Your task to perform on an android device: toggle notification dots Image 0: 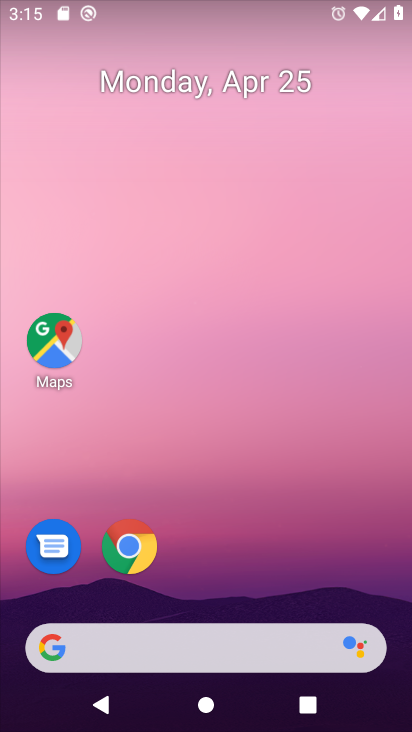
Step 0: drag from (230, 582) to (291, 32)
Your task to perform on an android device: toggle notification dots Image 1: 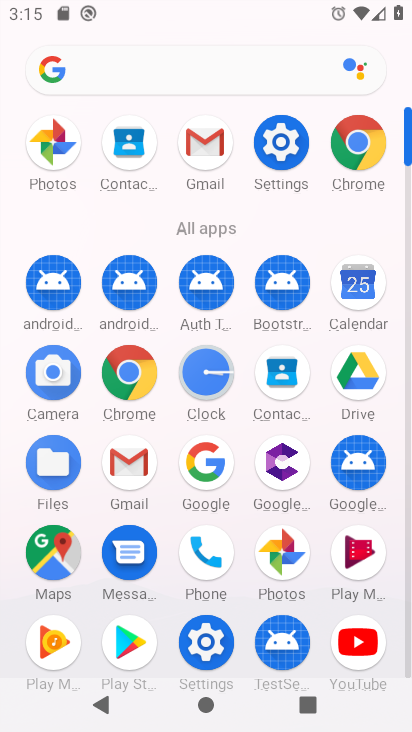
Step 1: click (278, 156)
Your task to perform on an android device: toggle notification dots Image 2: 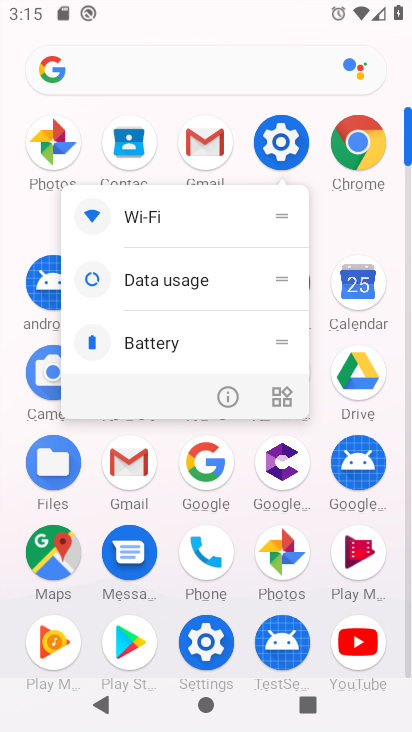
Step 2: click (279, 157)
Your task to perform on an android device: toggle notification dots Image 3: 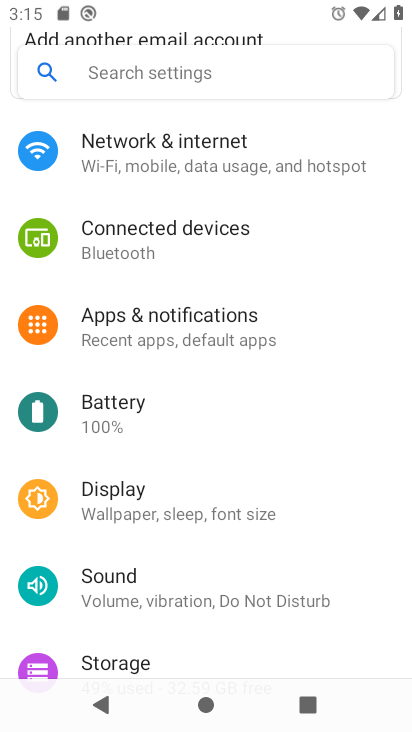
Step 3: click (171, 327)
Your task to perform on an android device: toggle notification dots Image 4: 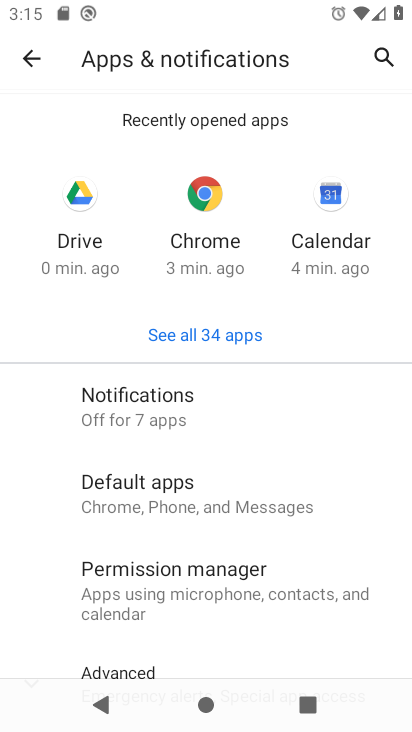
Step 4: click (174, 409)
Your task to perform on an android device: toggle notification dots Image 5: 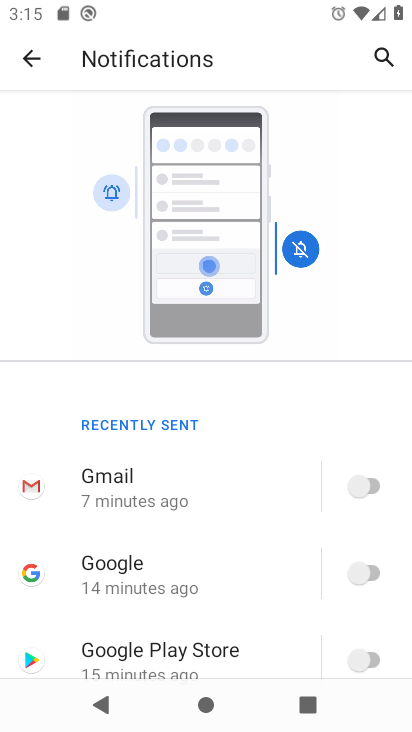
Step 5: drag from (219, 605) to (246, 232)
Your task to perform on an android device: toggle notification dots Image 6: 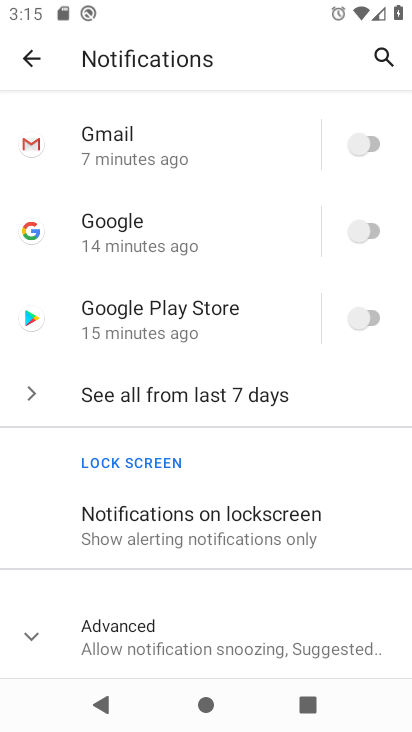
Step 6: click (183, 641)
Your task to perform on an android device: toggle notification dots Image 7: 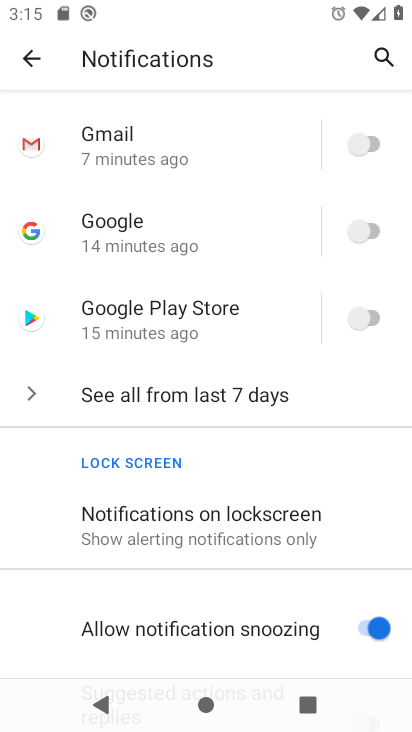
Step 7: drag from (190, 646) to (247, 159)
Your task to perform on an android device: toggle notification dots Image 8: 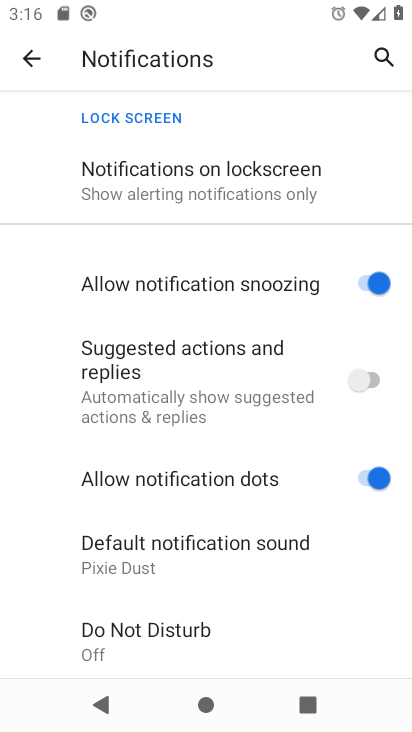
Step 8: drag from (184, 593) to (216, 314)
Your task to perform on an android device: toggle notification dots Image 9: 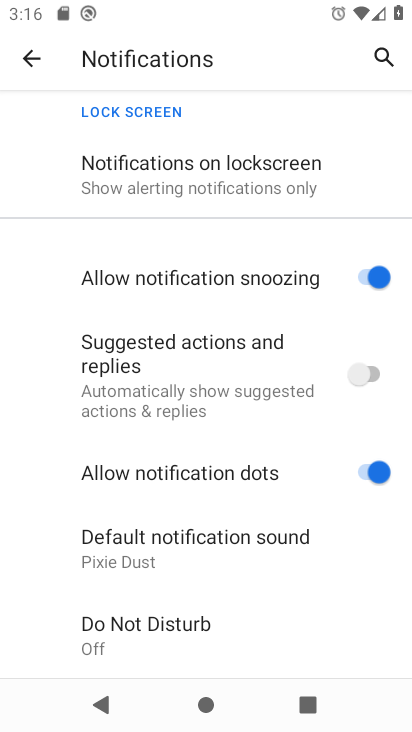
Step 9: click (361, 484)
Your task to perform on an android device: toggle notification dots Image 10: 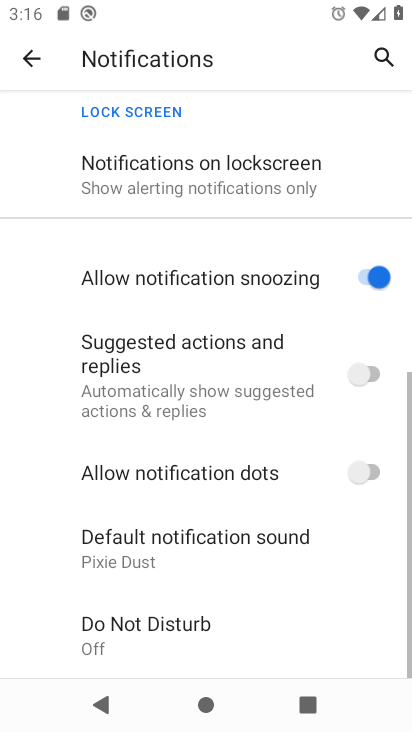
Step 10: task complete